Your task to perform on an android device: toggle pop-ups in chrome Image 0: 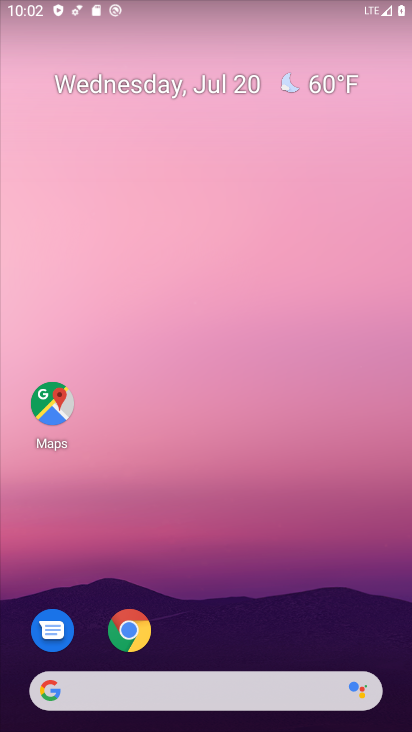
Step 0: press home button
Your task to perform on an android device: toggle pop-ups in chrome Image 1: 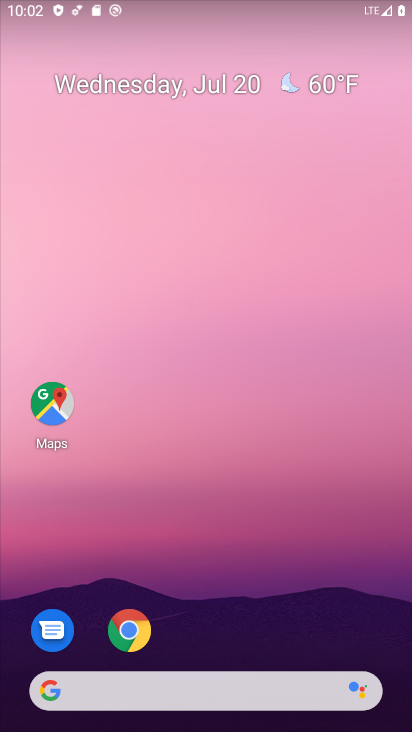
Step 1: click (120, 639)
Your task to perform on an android device: toggle pop-ups in chrome Image 2: 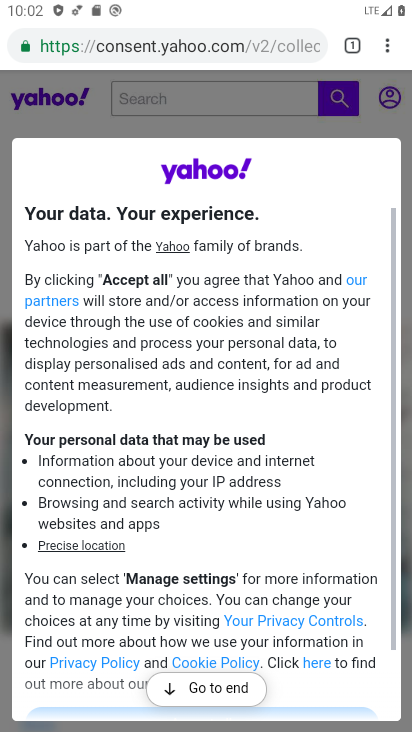
Step 2: click (390, 43)
Your task to perform on an android device: toggle pop-ups in chrome Image 3: 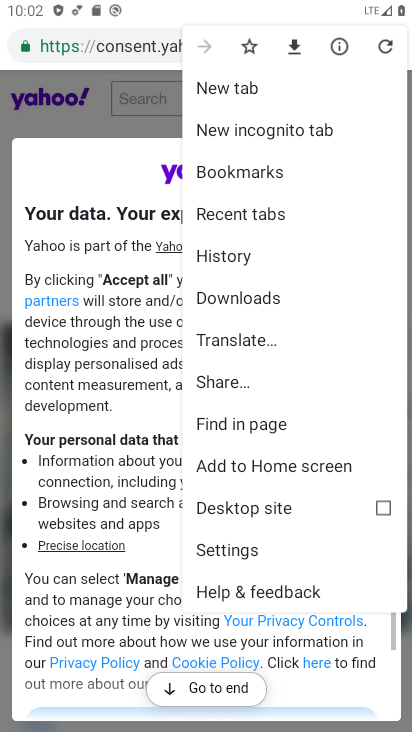
Step 3: click (218, 555)
Your task to perform on an android device: toggle pop-ups in chrome Image 4: 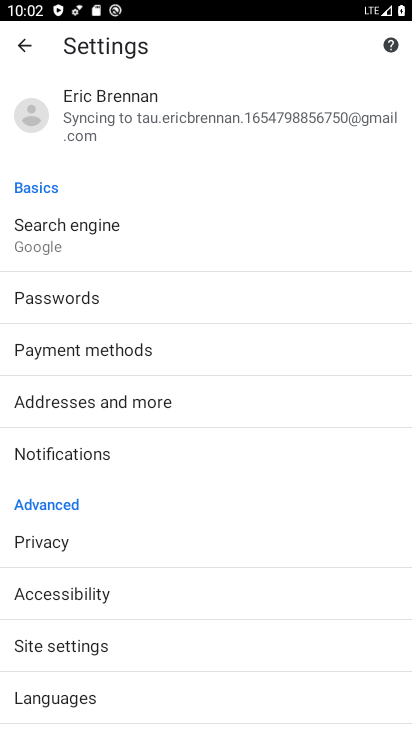
Step 4: click (84, 648)
Your task to perform on an android device: toggle pop-ups in chrome Image 5: 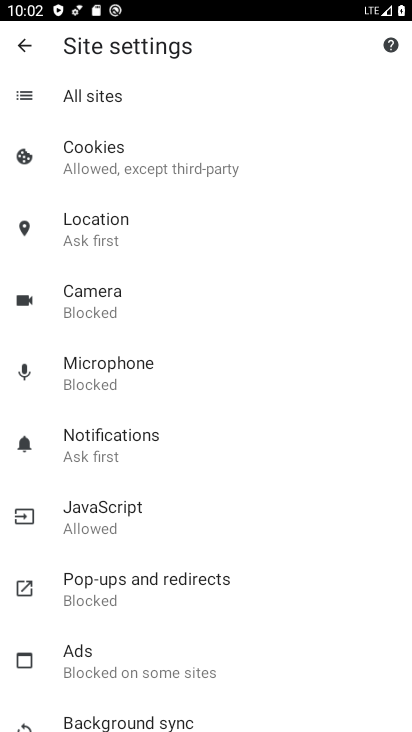
Step 5: click (146, 581)
Your task to perform on an android device: toggle pop-ups in chrome Image 6: 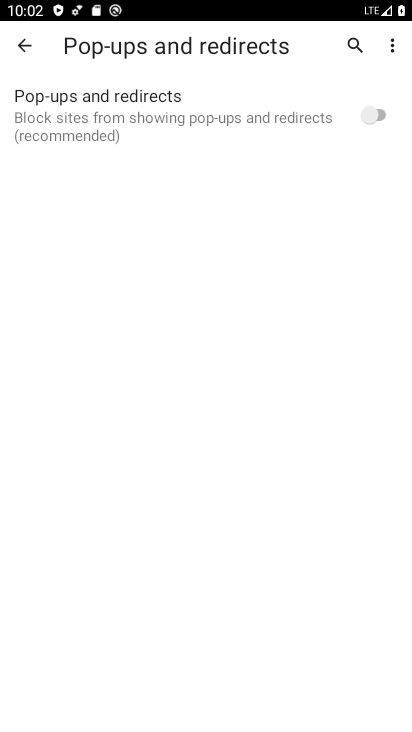
Step 6: click (359, 115)
Your task to perform on an android device: toggle pop-ups in chrome Image 7: 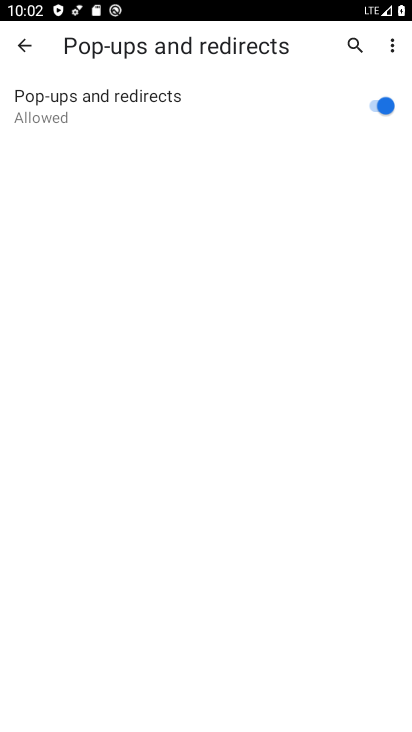
Step 7: task complete